Your task to perform on an android device: Search for Italian restaurants on Maps Image 0: 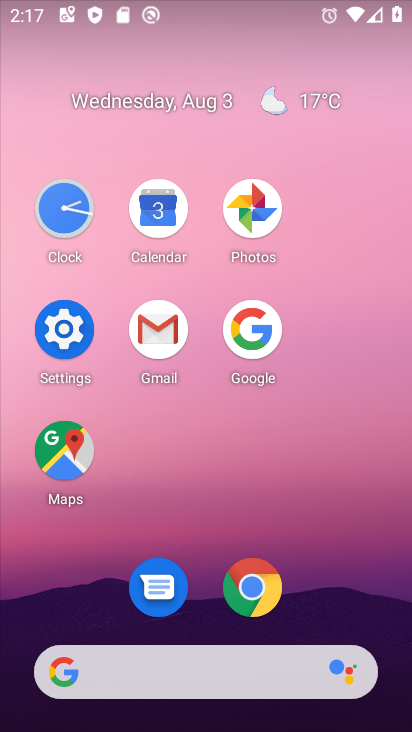
Step 0: click (50, 449)
Your task to perform on an android device: Search for Italian restaurants on Maps Image 1: 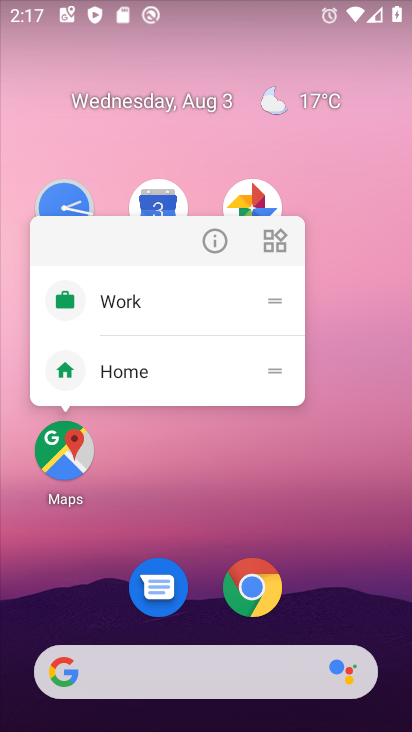
Step 1: click (60, 460)
Your task to perform on an android device: Search for Italian restaurants on Maps Image 2: 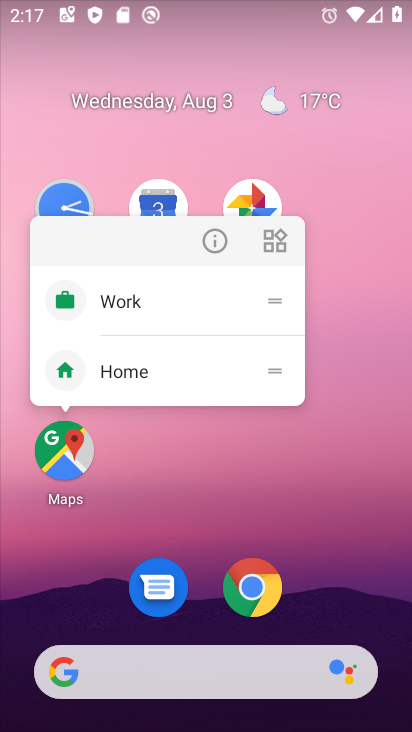
Step 2: click (59, 460)
Your task to perform on an android device: Search for Italian restaurants on Maps Image 3: 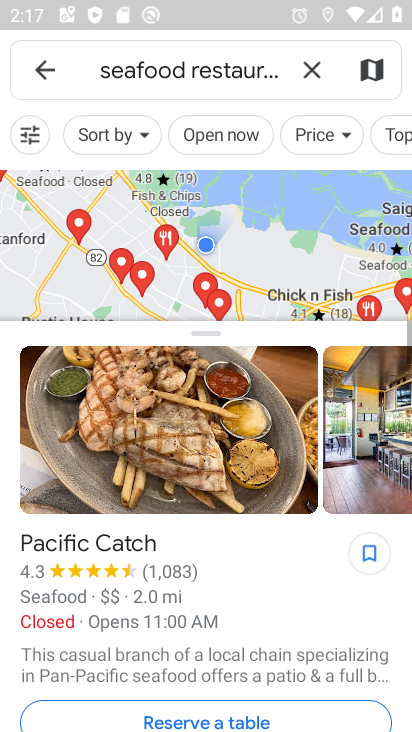
Step 3: click (319, 66)
Your task to perform on an android device: Search for Italian restaurants on Maps Image 4: 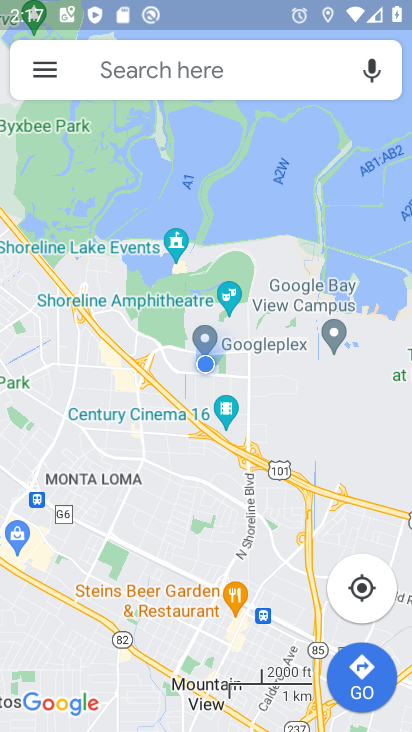
Step 4: click (261, 63)
Your task to perform on an android device: Search for Italian restaurants on Maps Image 5: 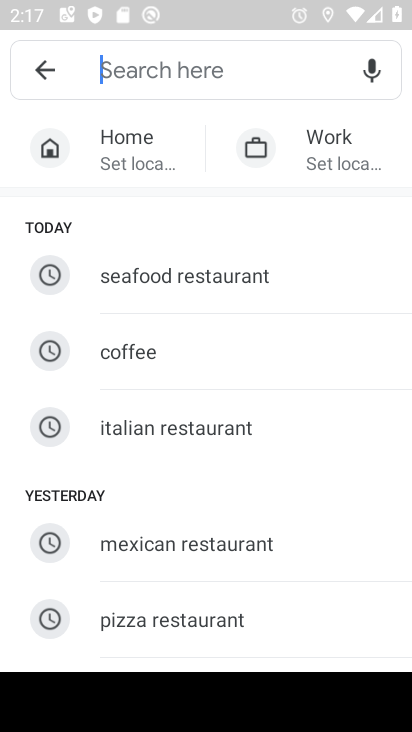
Step 5: click (261, 441)
Your task to perform on an android device: Search for Italian restaurants on Maps Image 6: 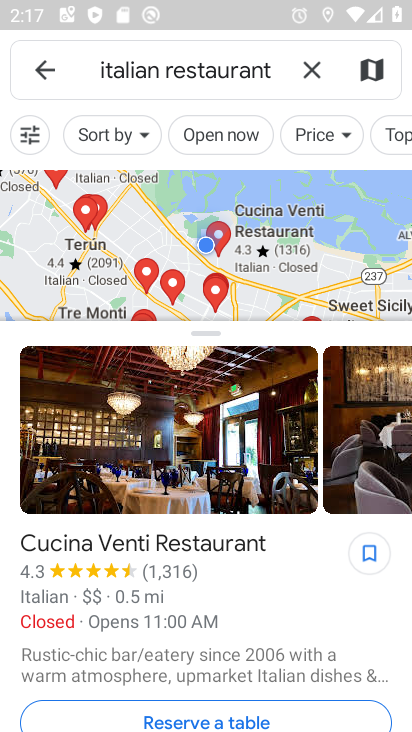
Step 6: task complete